Your task to perform on an android device: Open sound settings Image 0: 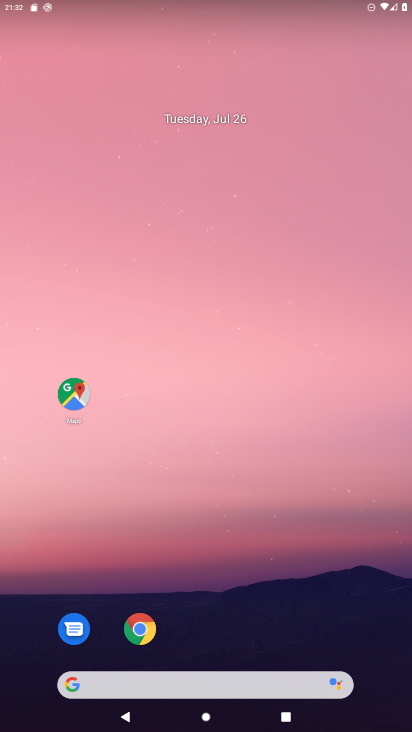
Step 0: press home button
Your task to perform on an android device: Open sound settings Image 1: 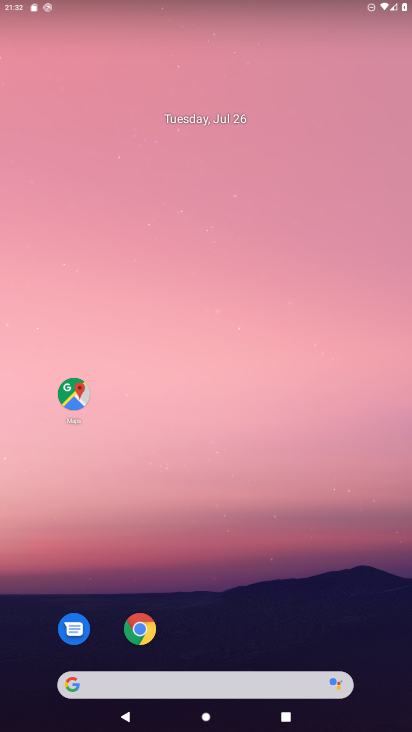
Step 1: drag from (313, 574) to (220, 229)
Your task to perform on an android device: Open sound settings Image 2: 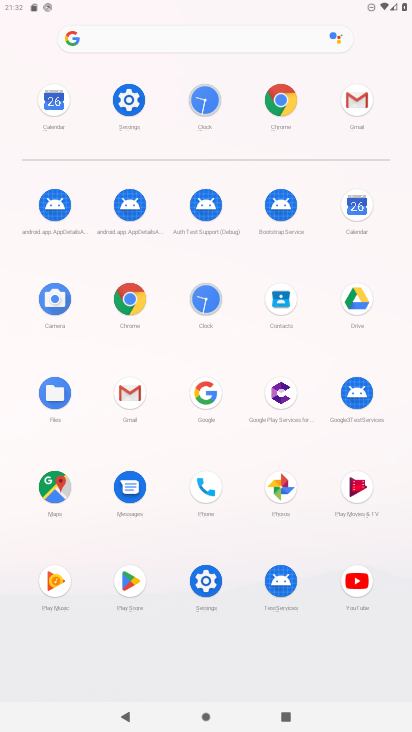
Step 2: click (205, 591)
Your task to perform on an android device: Open sound settings Image 3: 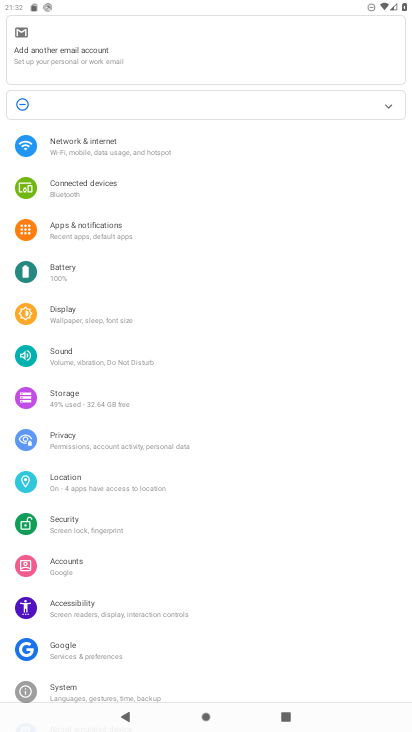
Step 3: click (71, 365)
Your task to perform on an android device: Open sound settings Image 4: 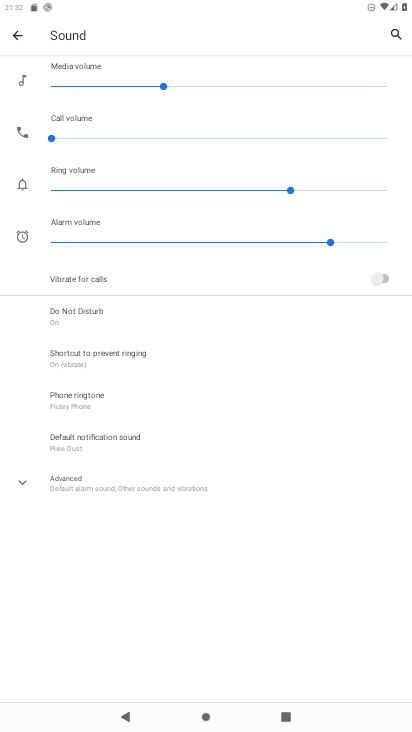
Step 4: task complete